Your task to perform on an android device: make emails show in primary in the gmail app Image 0: 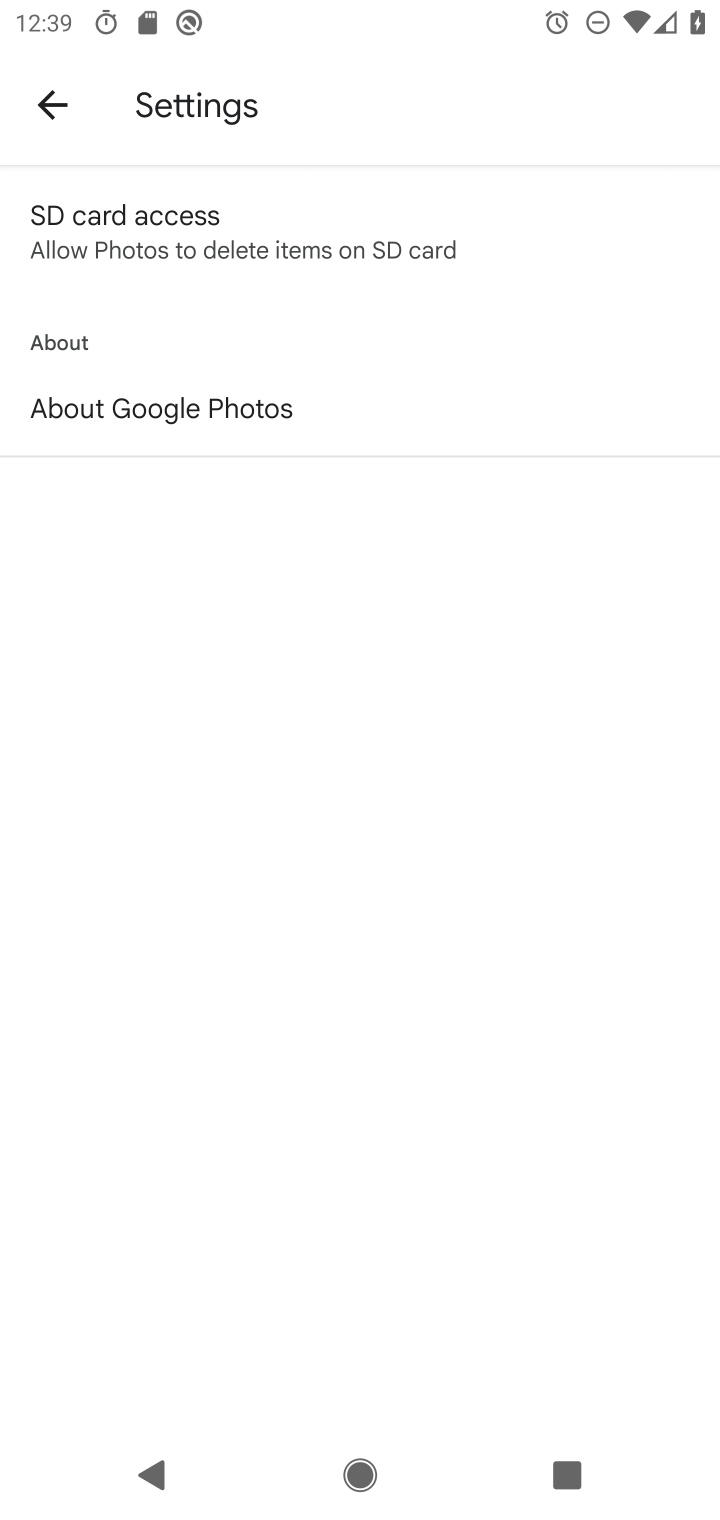
Step 0: press home button
Your task to perform on an android device: make emails show in primary in the gmail app Image 1: 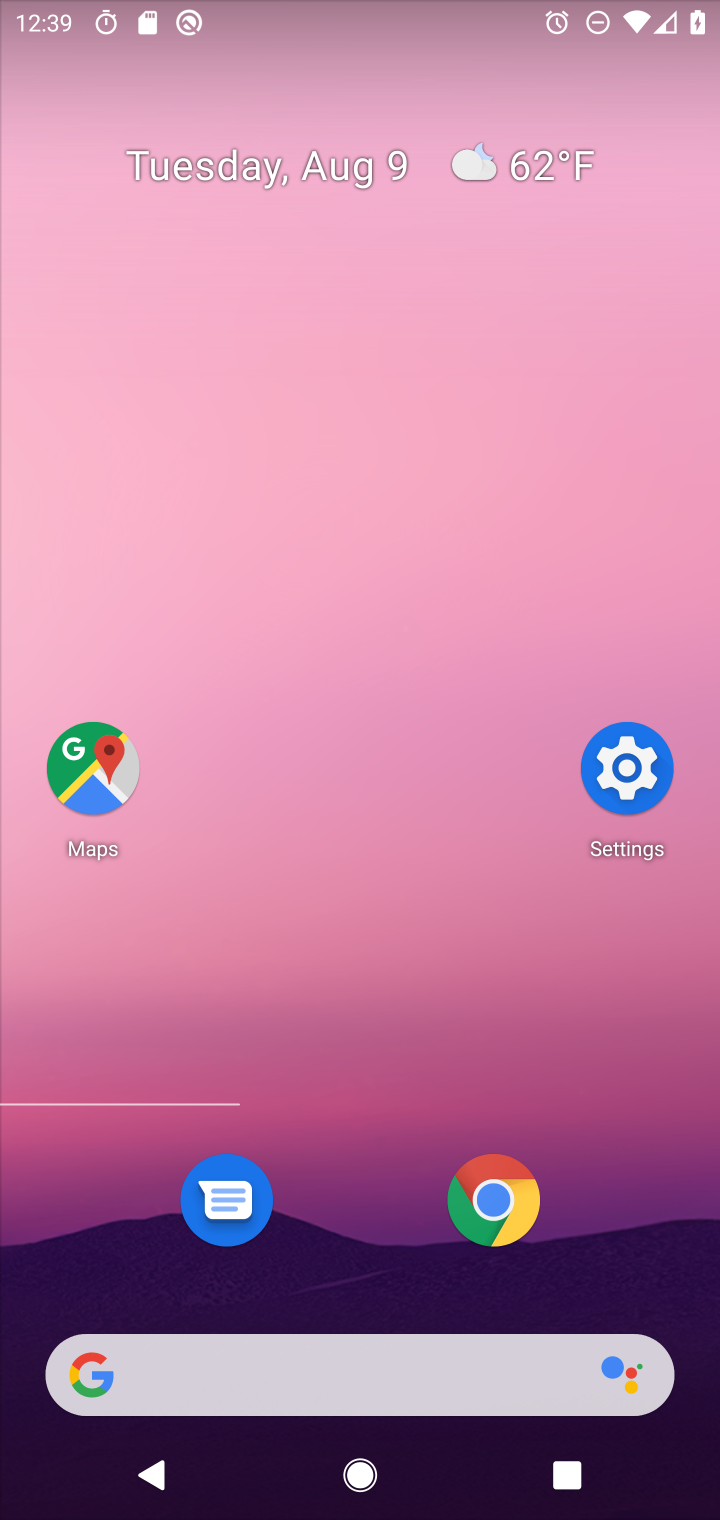
Step 1: drag from (373, 1340) to (621, 544)
Your task to perform on an android device: make emails show in primary in the gmail app Image 2: 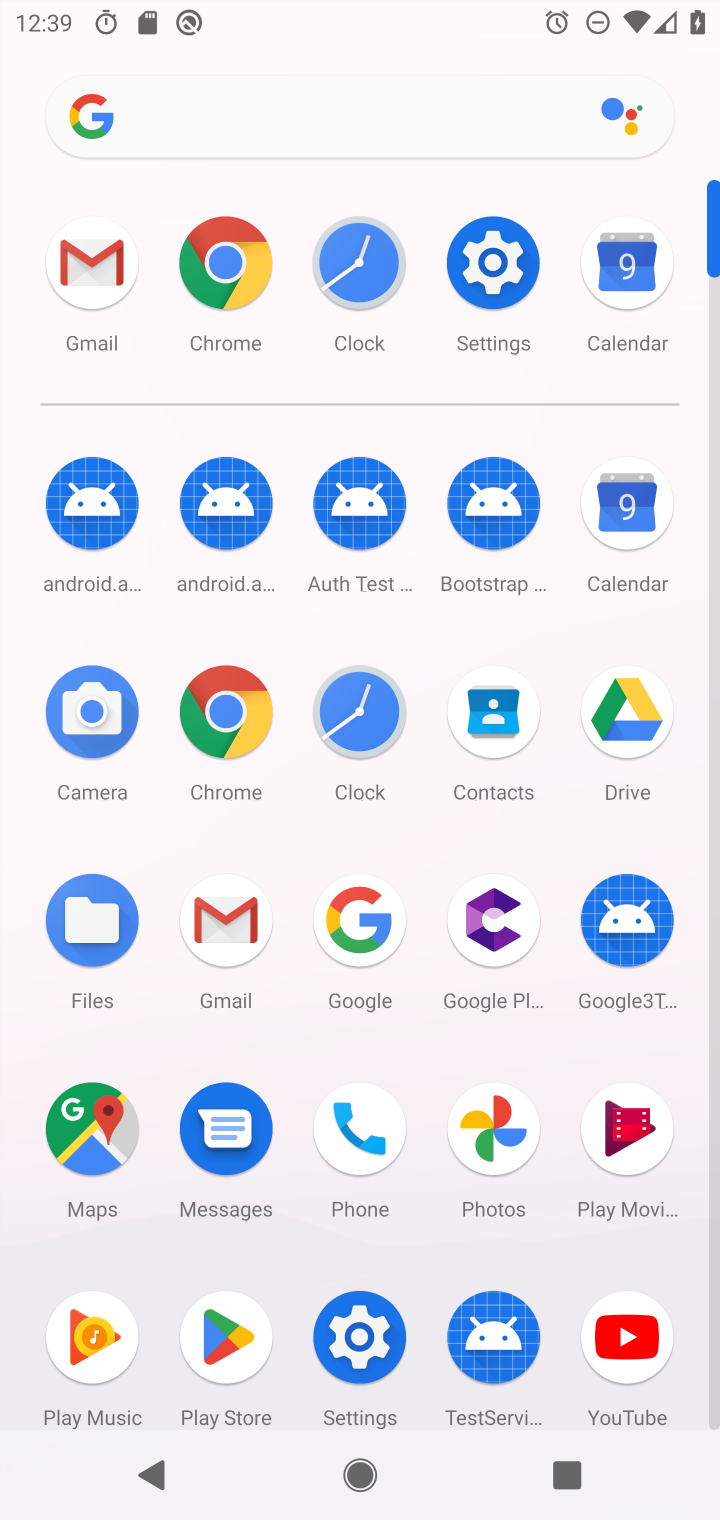
Step 2: click (87, 273)
Your task to perform on an android device: make emails show in primary in the gmail app Image 3: 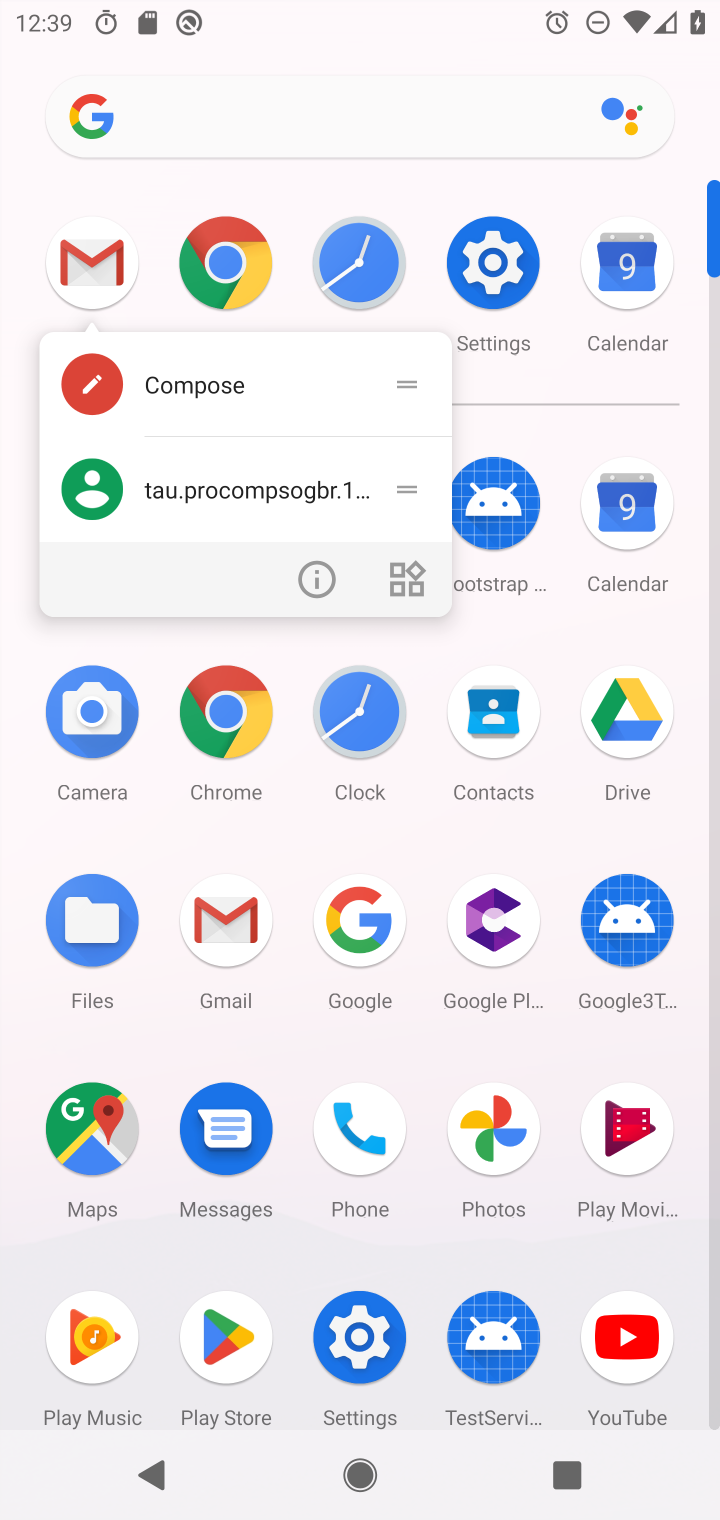
Step 3: click (93, 266)
Your task to perform on an android device: make emails show in primary in the gmail app Image 4: 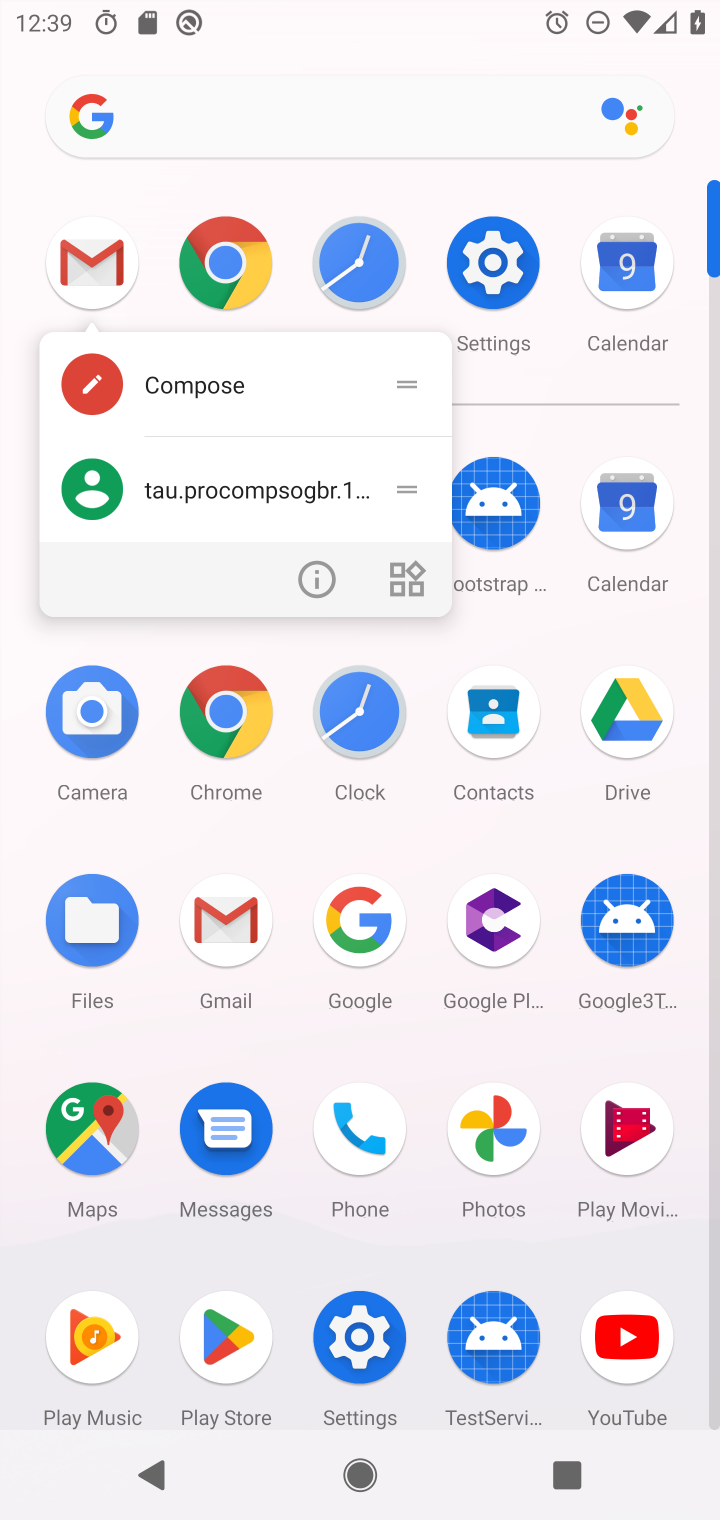
Step 4: click (93, 266)
Your task to perform on an android device: make emails show in primary in the gmail app Image 5: 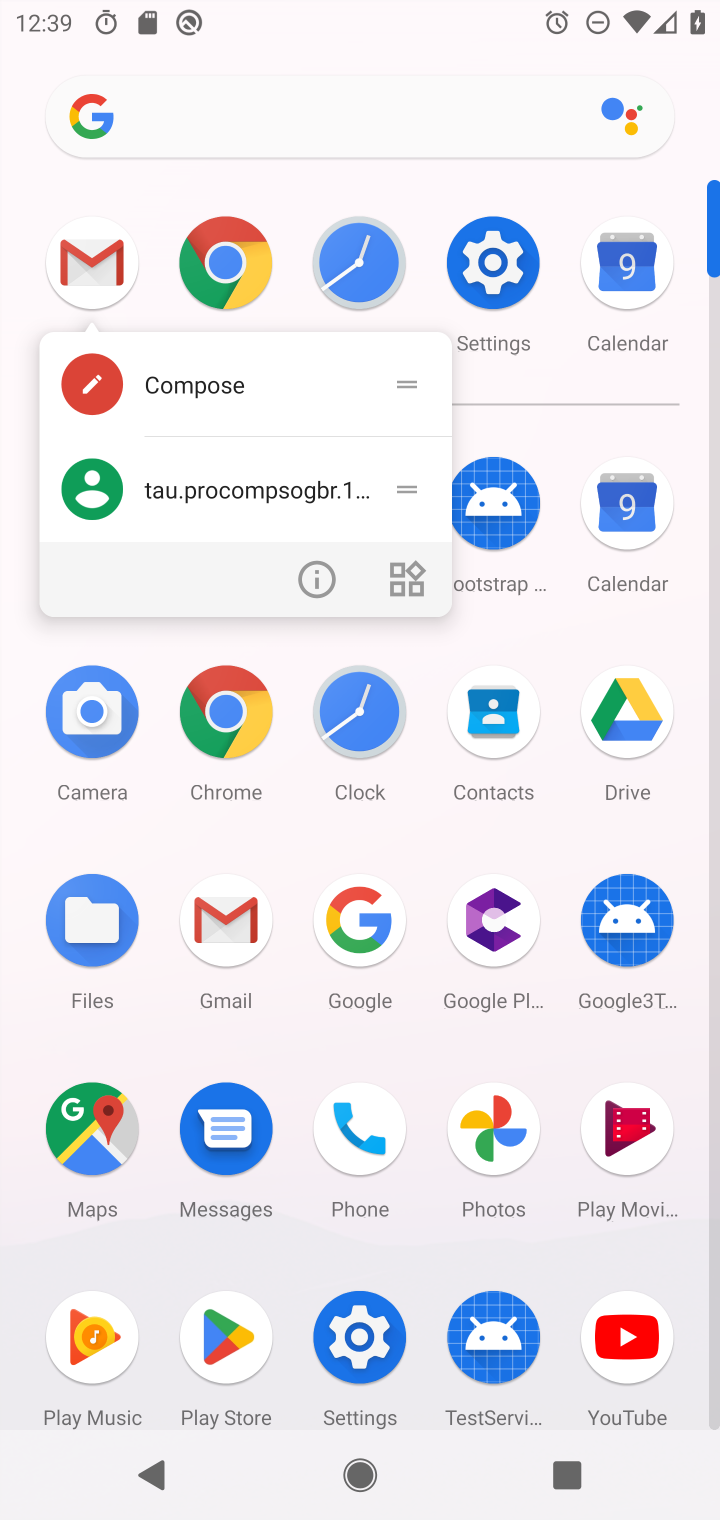
Step 5: click (91, 271)
Your task to perform on an android device: make emails show in primary in the gmail app Image 6: 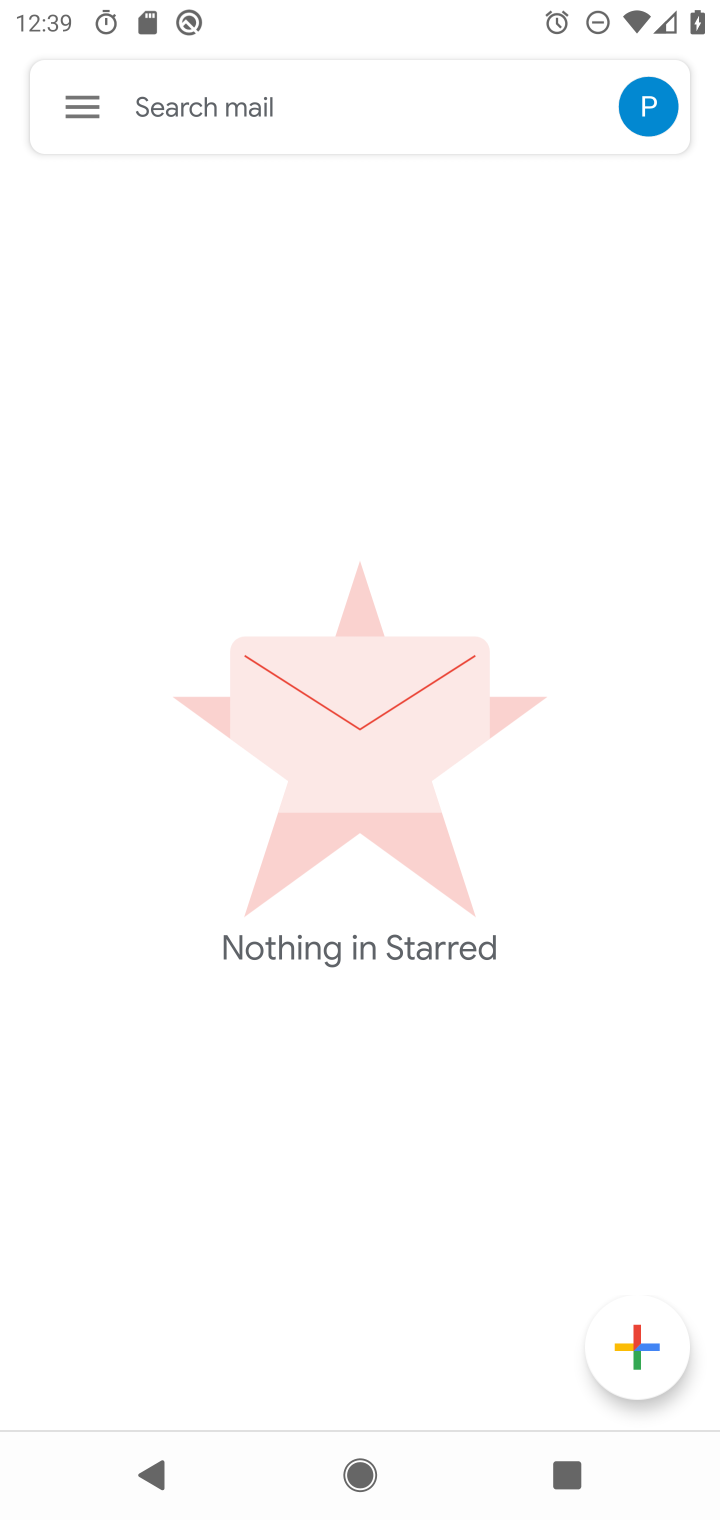
Step 6: click (77, 112)
Your task to perform on an android device: make emails show in primary in the gmail app Image 7: 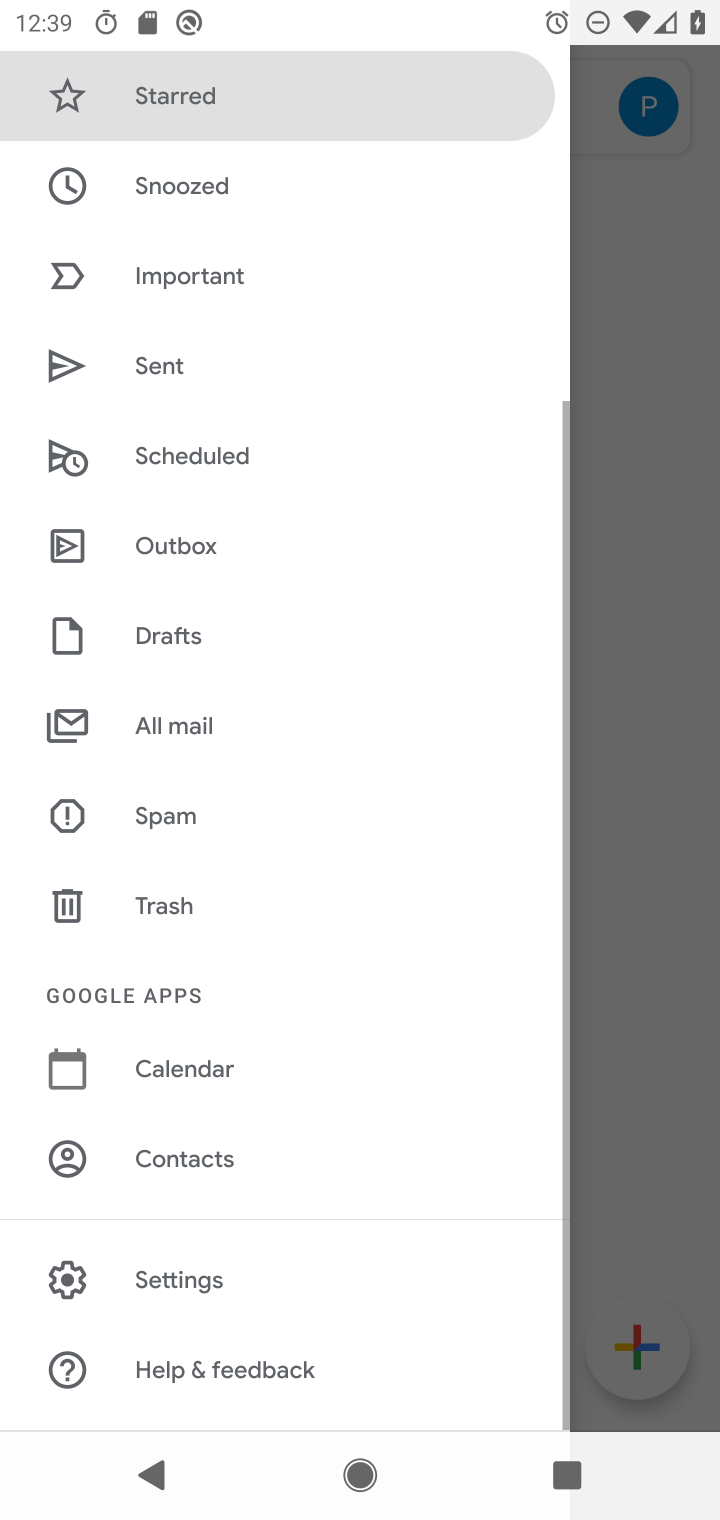
Step 7: click (187, 1290)
Your task to perform on an android device: make emails show in primary in the gmail app Image 8: 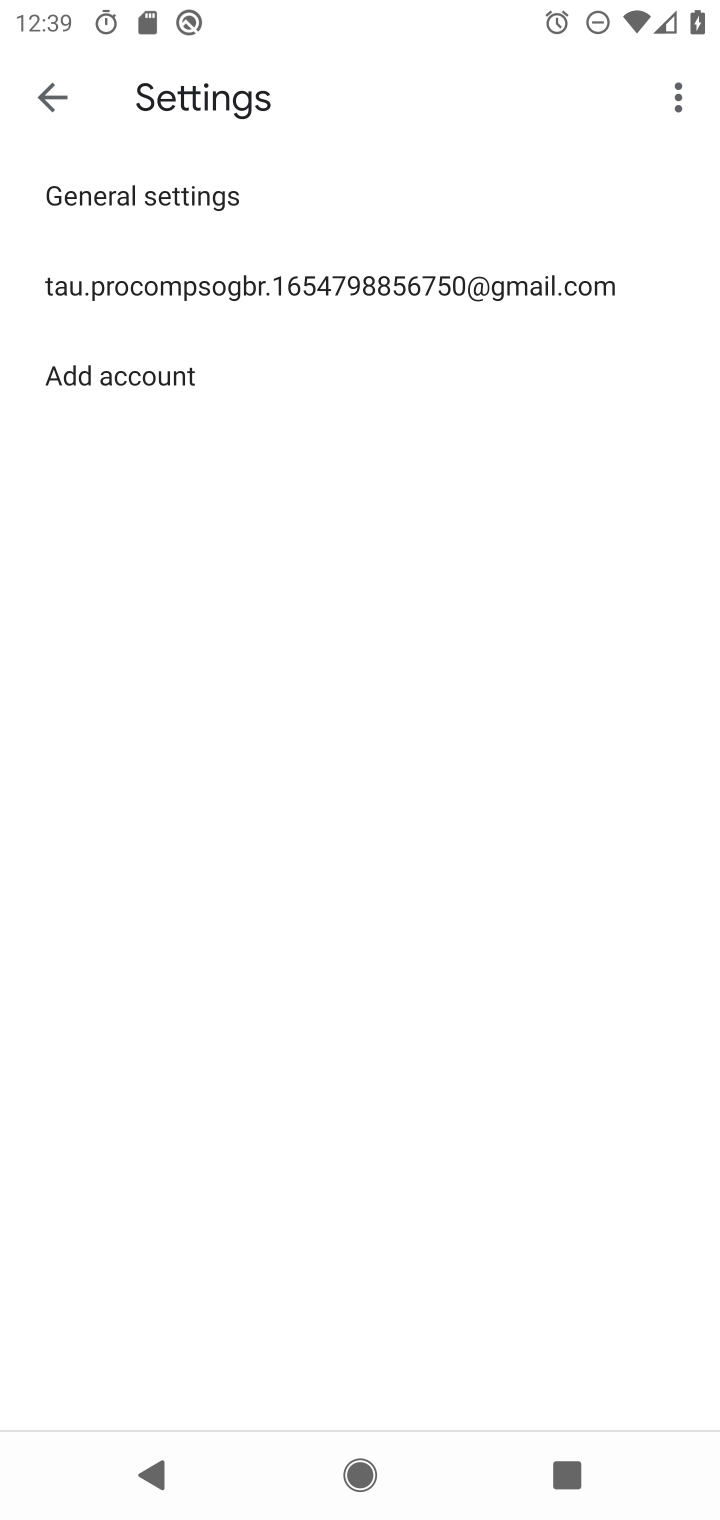
Step 8: click (385, 273)
Your task to perform on an android device: make emails show in primary in the gmail app Image 9: 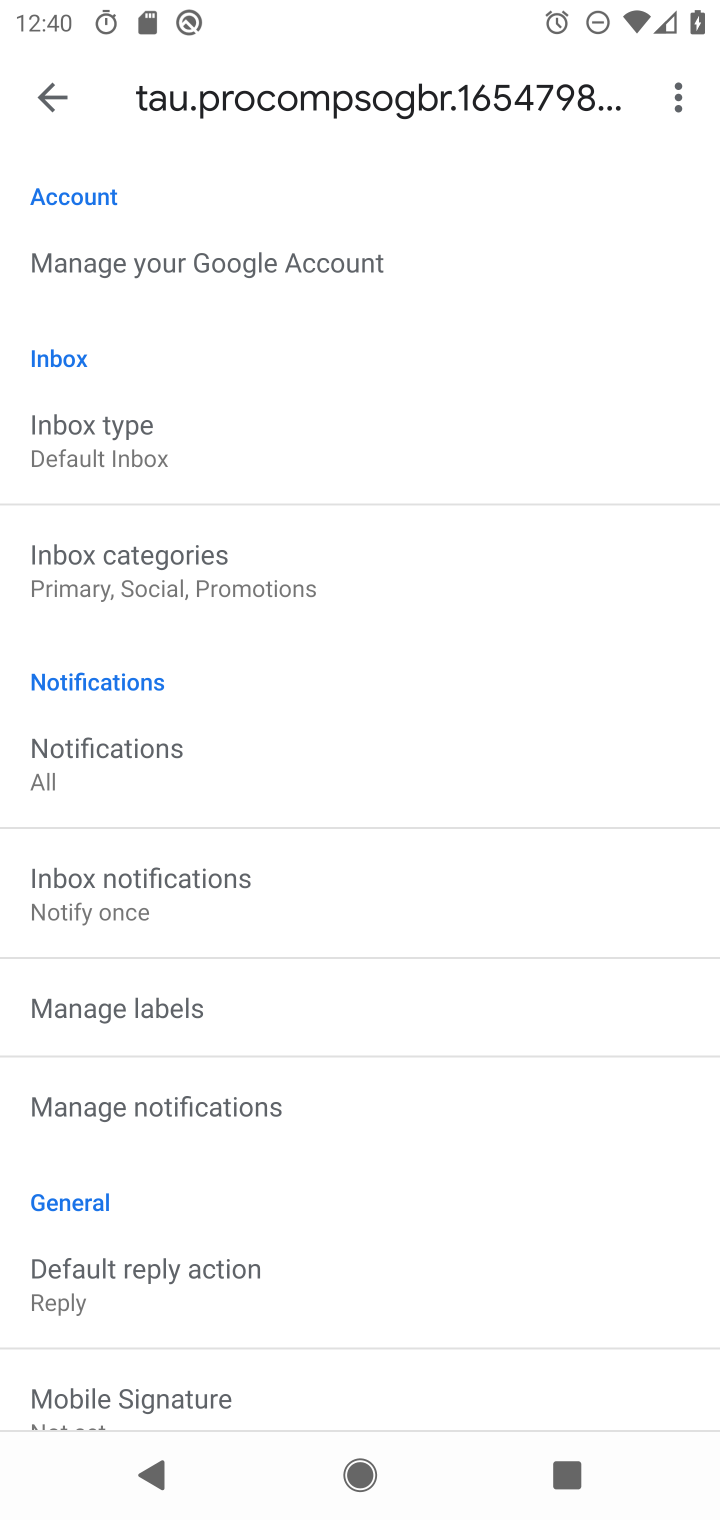
Step 9: task complete